Your task to perform on an android device: turn on wifi Image 0: 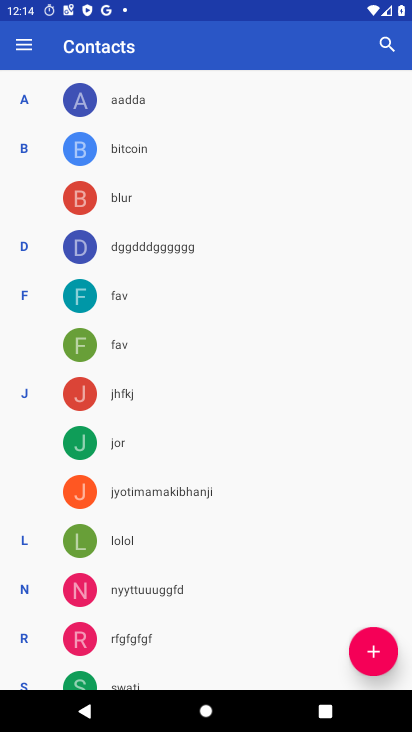
Step 0: press home button
Your task to perform on an android device: turn on wifi Image 1: 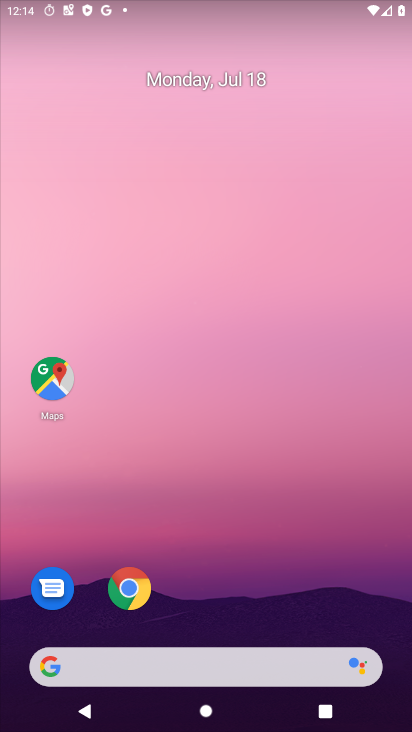
Step 1: drag from (255, 589) to (265, 201)
Your task to perform on an android device: turn on wifi Image 2: 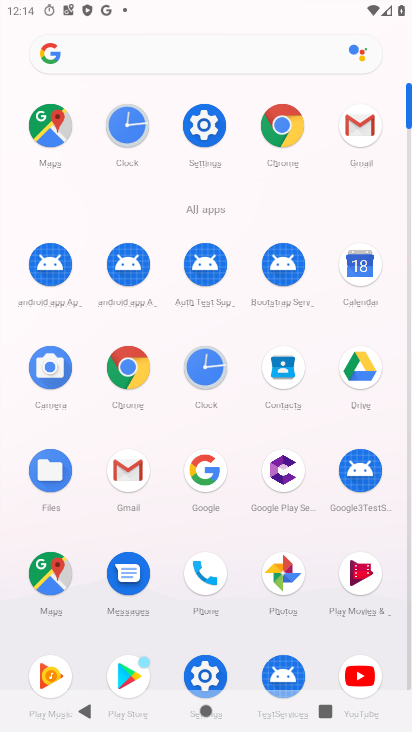
Step 2: click (211, 135)
Your task to perform on an android device: turn on wifi Image 3: 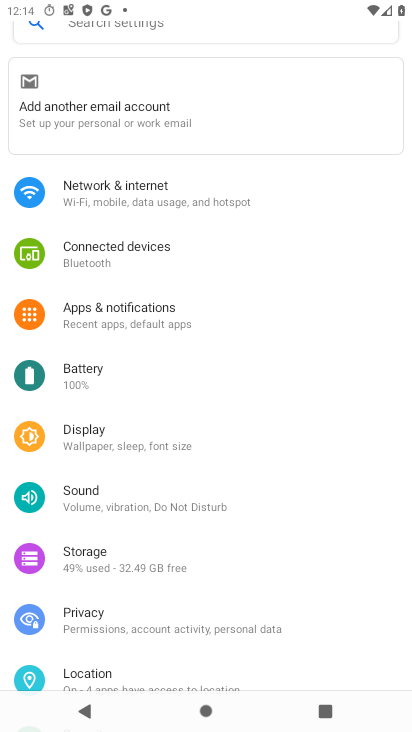
Step 3: click (165, 189)
Your task to perform on an android device: turn on wifi Image 4: 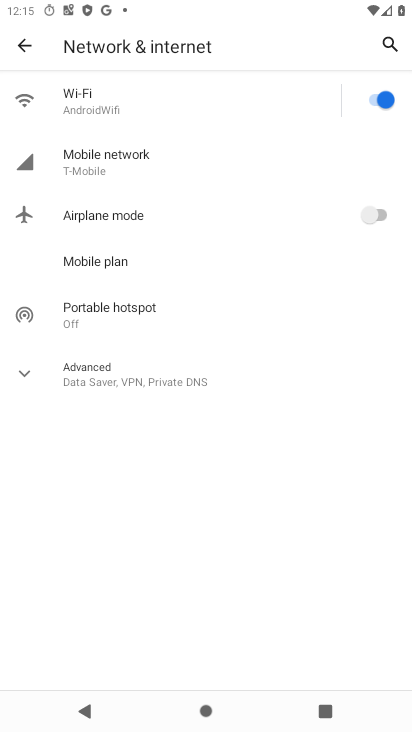
Step 4: task complete